Your task to perform on an android device: Show me the alarms in the clock app Image 0: 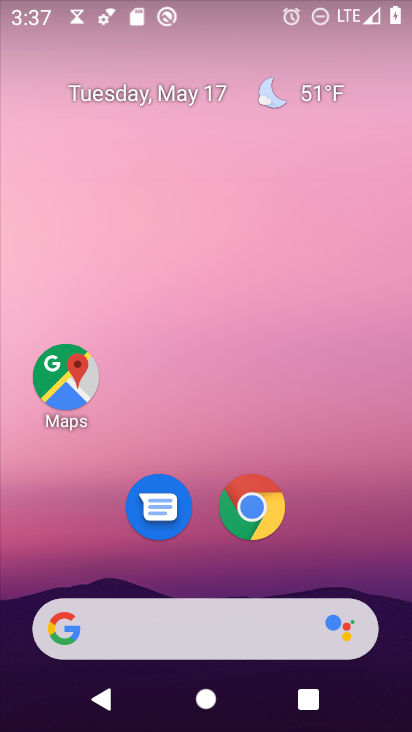
Step 0: drag from (338, 572) to (374, 56)
Your task to perform on an android device: Show me the alarms in the clock app Image 1: 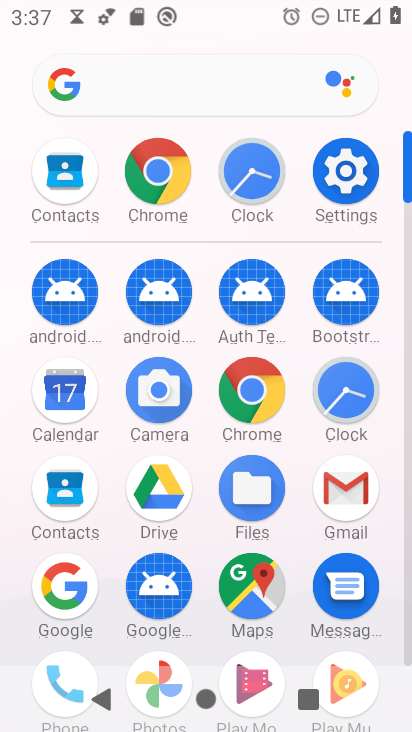
Step 1: click (347, 397)
Your task to perform on an android device: Show me the alarms in the clock app Image 2: 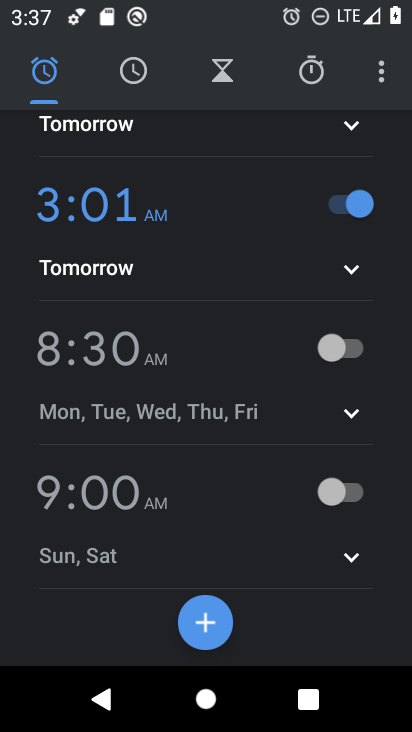
Step 2: task complete